Your task to perform on an android device: open a new tab in the chrome app Image 0: 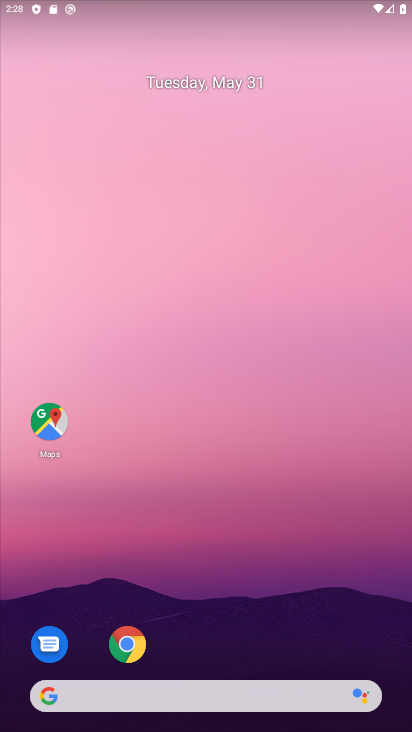
Step 0: click (126, 643)
Your task to perform on an android device: open a new tab in the chrome app Image 1: 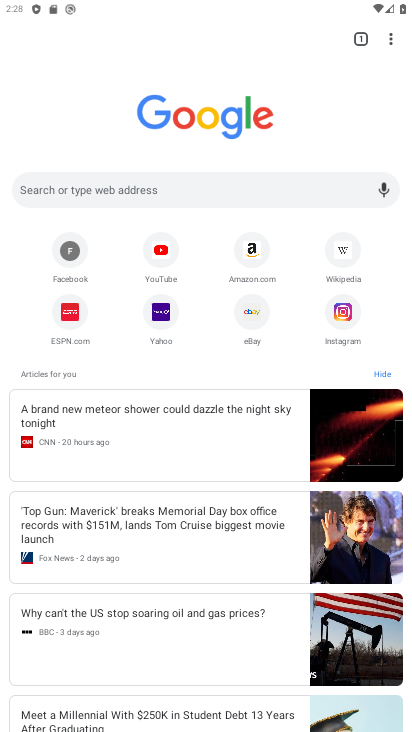
Step 1: click (392, 27)
Your task to perform on an android device: open a new tab in the chrome app Image 2: 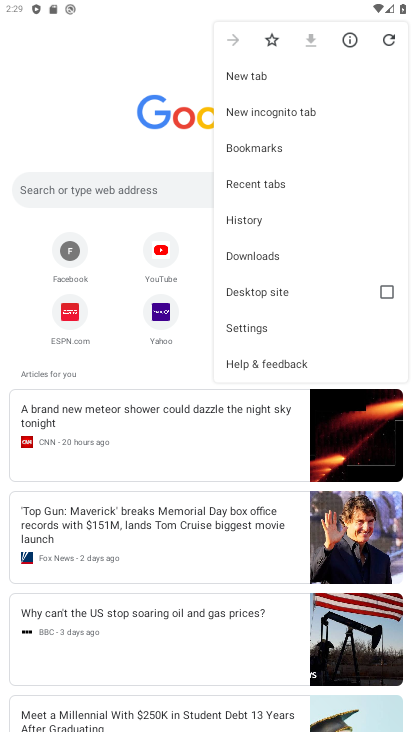
Step 2: click (244, 85)
Your task to perform on an android device: open a new tab in the chrome app Image 3: 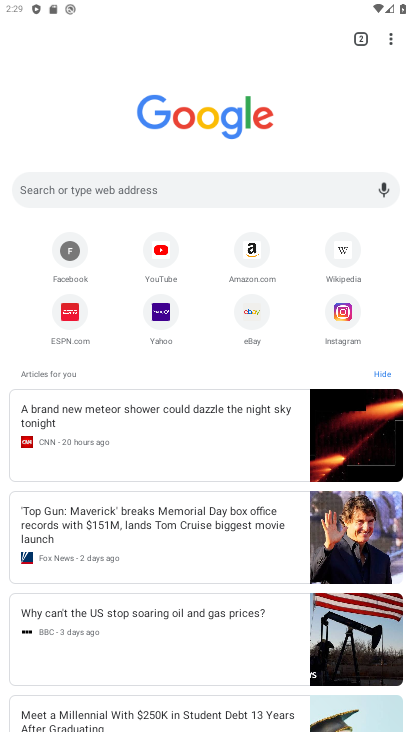
Step 3: task complete